Your task to perform on an android device: Turn on the flashlight Image 0: 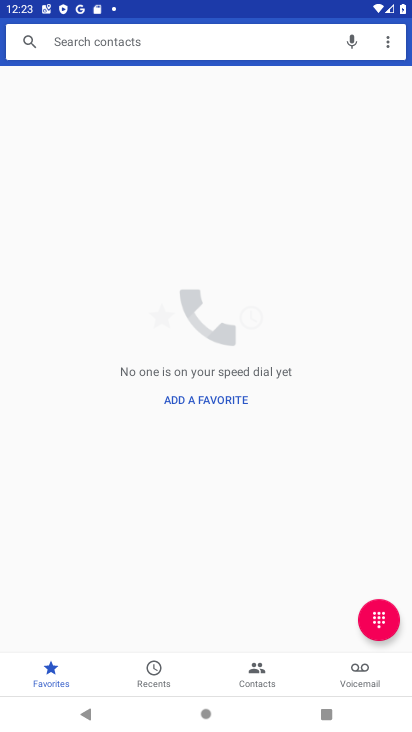
Step 0: press home button
Your task to perform on an android device: Turn on the flashlight Image 1: 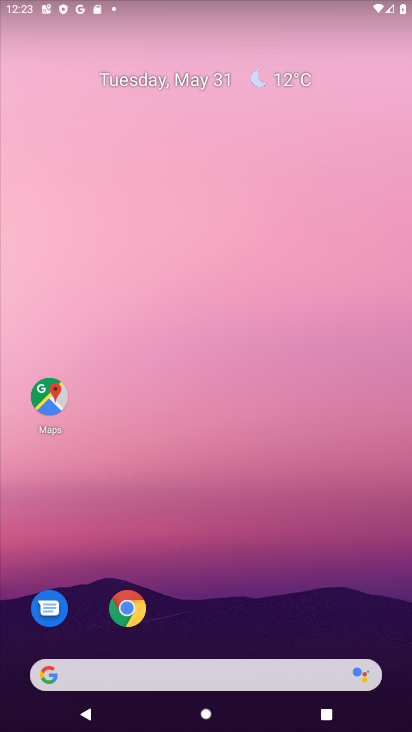
Step 1: drag from (233, 606) to (281, 12)
Your task to perform on an android device: Turn on the flashlight Image 2: 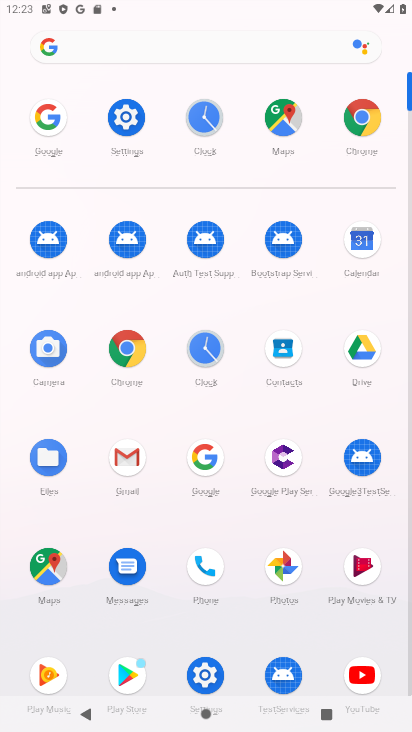
Step 2: click (128, 121)
Your task to perform on an android device: Turn on the flashlight Image 3: 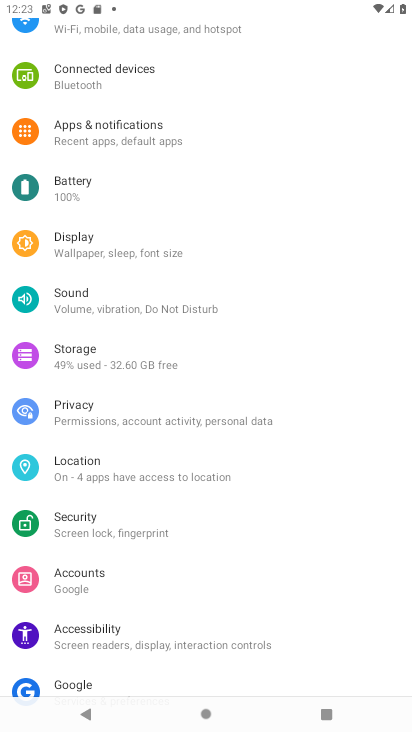
Step 3: drag from (169, 40) to (197, 513)
Your task to perform on an android device: Turn on the flashlight Image 4: 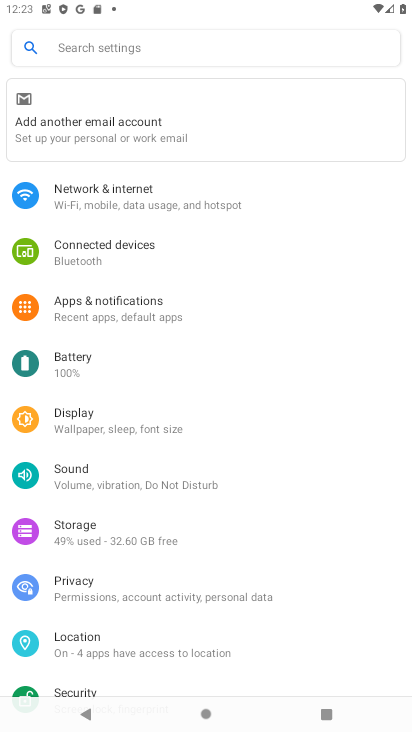
Step 4: click (163, 53)
Your task to perform on an android device: Turn on the flashlight Image 5: 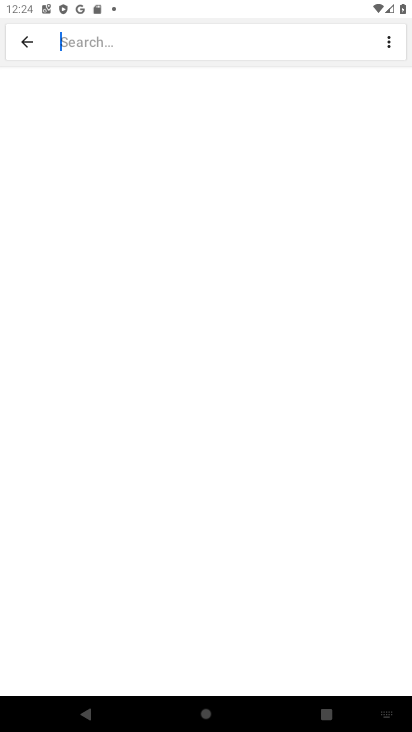
Step 5: type "flash"
Your task to perform on an android device: Turn on the flashlight Image 6: 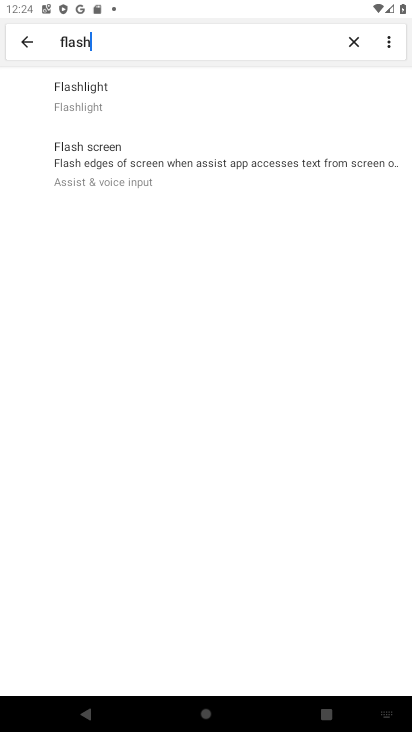
Step 6: task complete